Your task to perform on an android device: Open network settings Image 0: 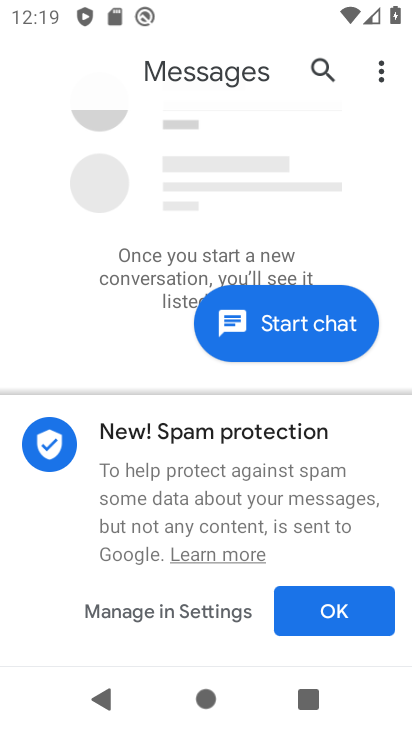
Step 0: press home button
Your task to perform on an android device: Open network settings Image 1: 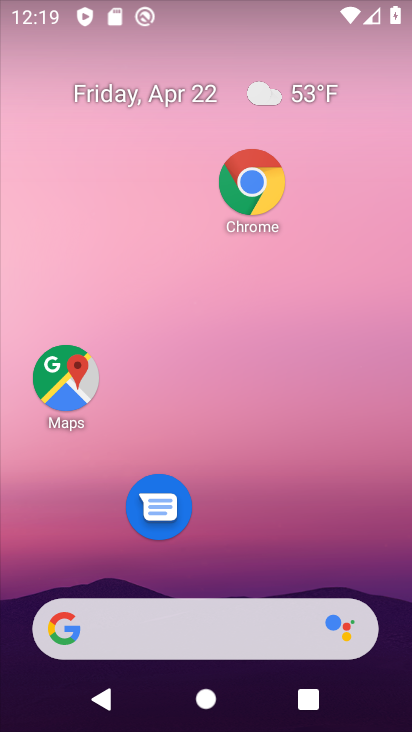
Step 1: drag from (174, 629) to (212, 177)
Your task to perform on an android device: Open network settings Image 2: 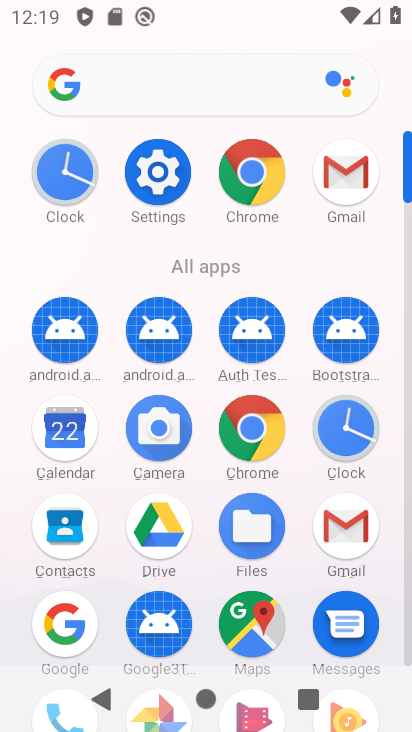
Step 2: click (169, 181)
Your task to perform on an android device: Open network settings Image 3: 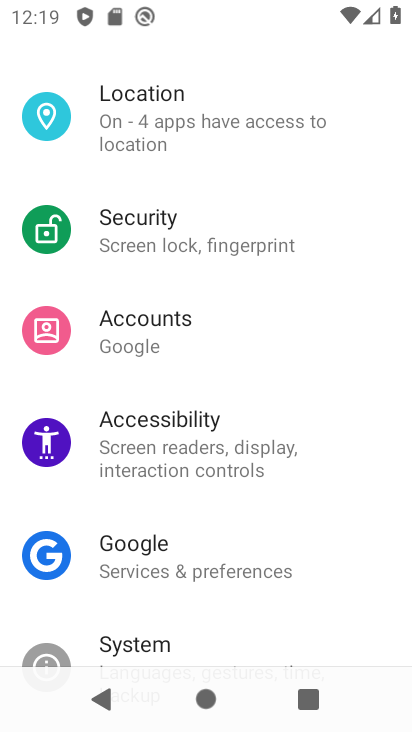
Step 3: drag from (176, 157) to (246, 693)
Your task to perform on an android device: Open network settings Image 4: 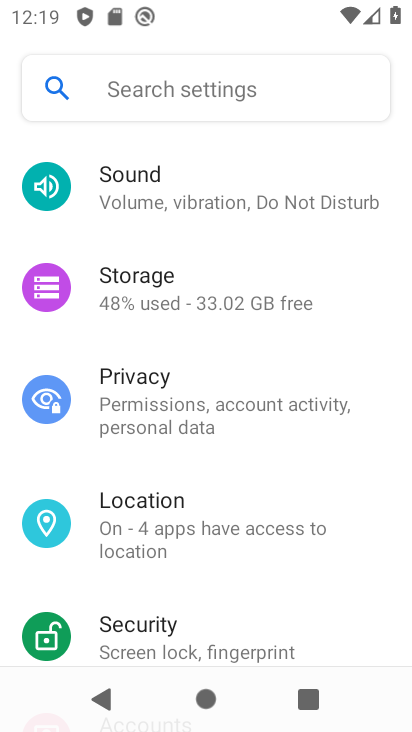
Step 4: drag from (196, 205) to (219, 496)
Your task to perform on an android device: Open network settings Image 5: 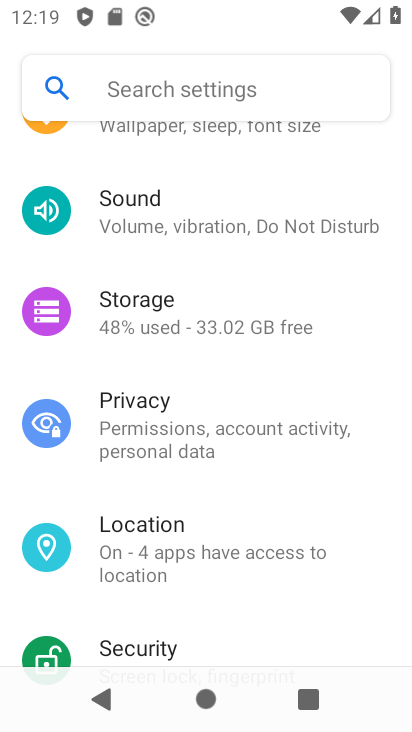
Step 5: drag from (208, 185) to (194, 497)
Your task to perform on an android device: Open network settings Image 6: 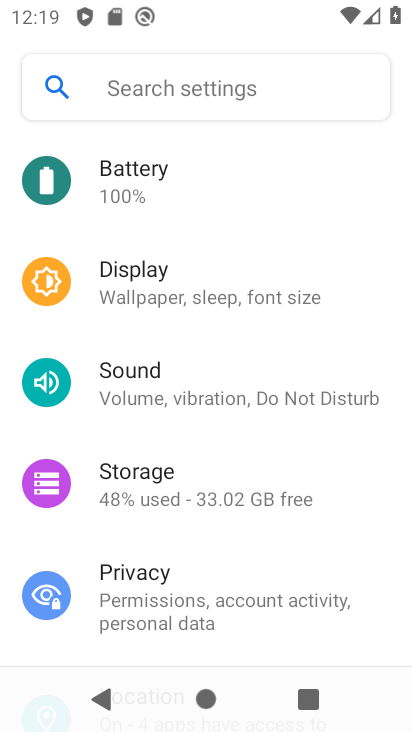
Step 6: drag from (177, 217) to (169, 514)
Your task to perform on an android device: Open network settings Image 7: 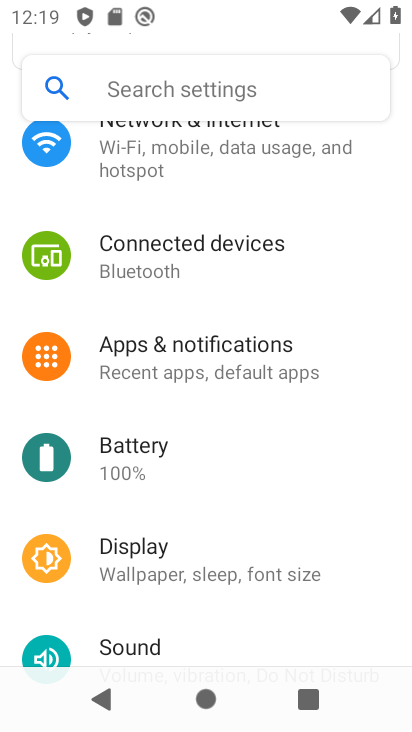
Step 7: click (206, 148)
Your task to perform on an android device: Open network settings Image 8: 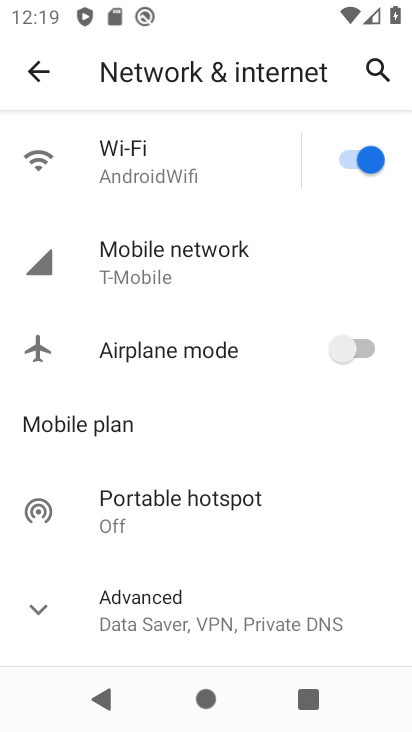
Step 8: task complete